Your task to perform on an android device: check battery use Image 0: 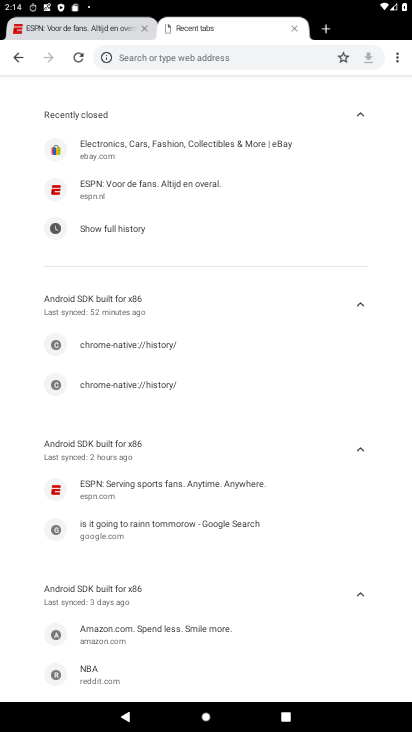
Step 0: press home button
Your task to perform on an android device: check battery use Image 1: 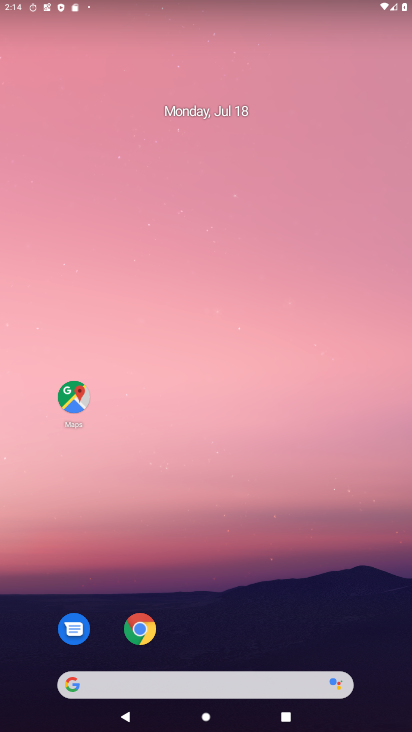
Step 1: drag from (220, 648) to (222, 172)
Your task to perform on an android device: check battery use Image 2: 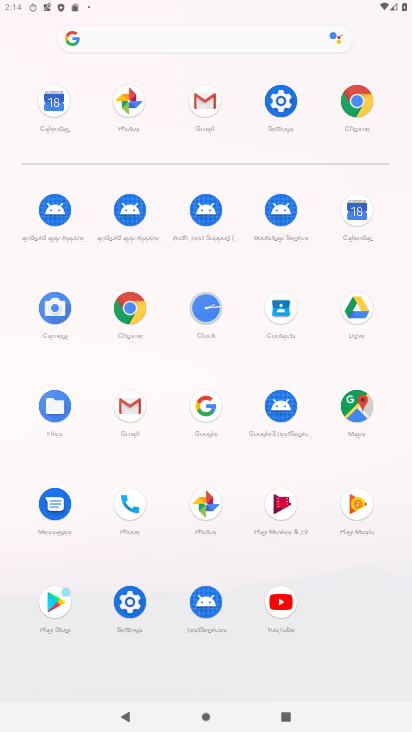
Step 2: click (278, 97)
Your task to perform on an android device: check battery use Image 3: 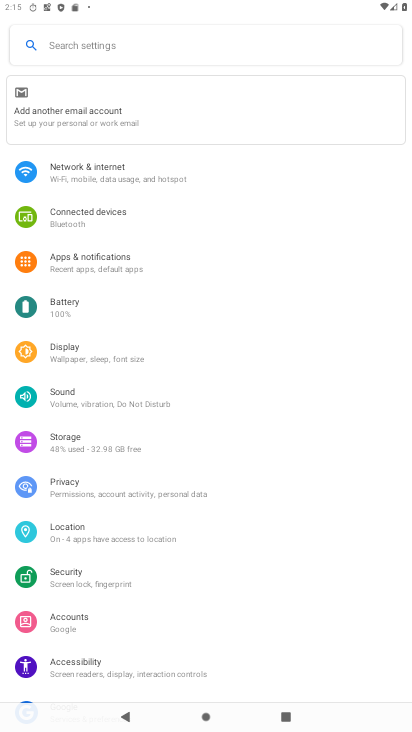
Step 3: click (85, 307)
Your task to perform on an android device: check battery use Image 4: 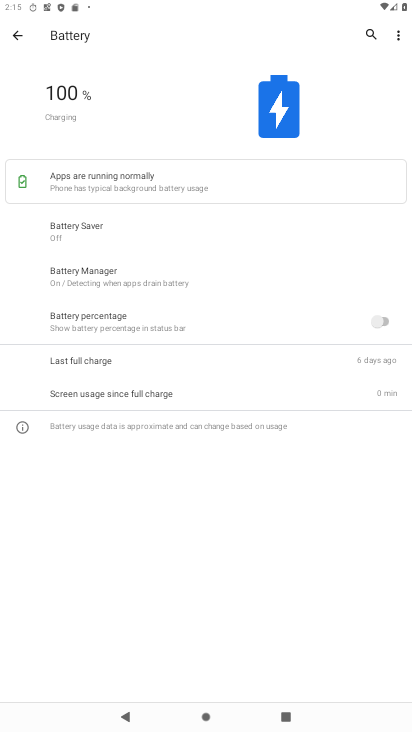
Step 4: click (397, 36)
Your task to perform on an android device: check battery use Image 5: 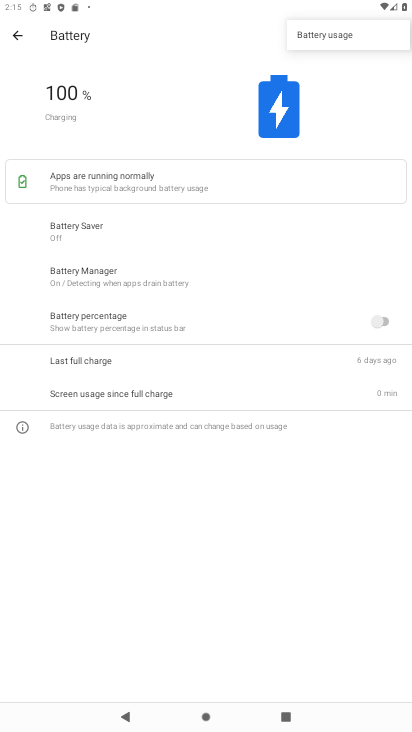
Step 5: click (329, 33)
Your task to perform on an android device: check battery use Image 6: 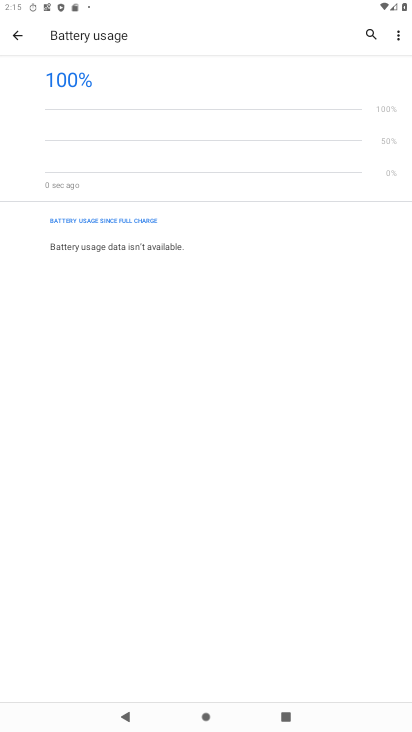
Step 6: task complete